Your task to perform on an android device: Go to sound settings Image 0: 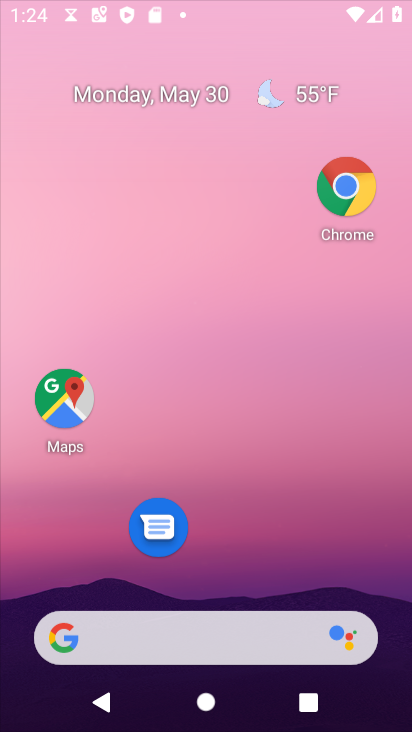
Step 0: click (257, 201)
Your task to perform on an android device: Go to sound settings Image 1: 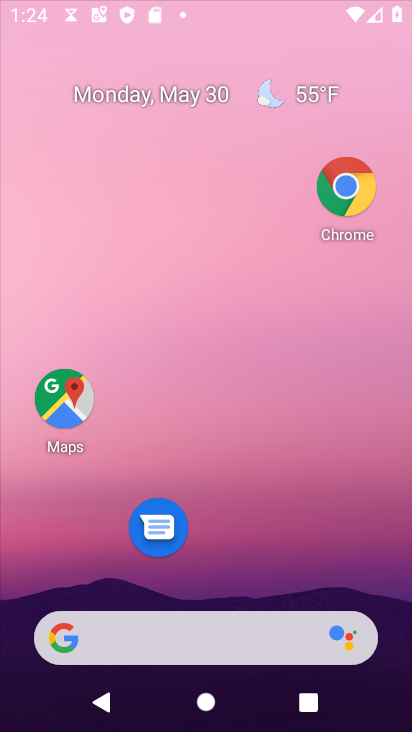
Step 1: drag from (203, 562) to (224, 180)
Your task to perform on an android device: Go to sound settings Image 2: 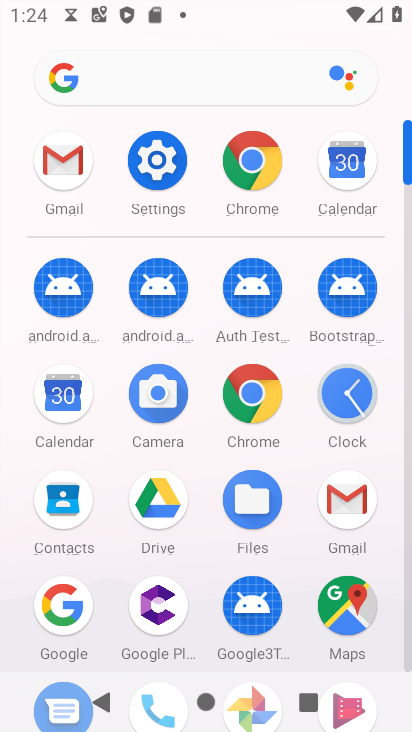
Step 2: drag from (196, 614) to (239, 222)
Your task to perform on an android device: Go to sound settings Image 3: 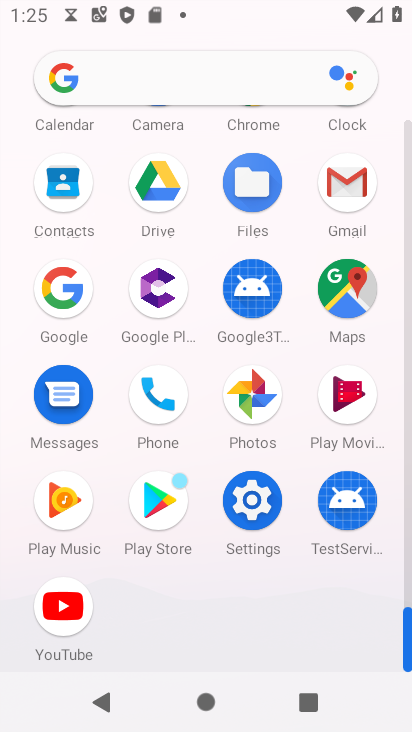
Step 3: click (248, 492)
Your task to perform on an android device: Go to sound settings Image 4: 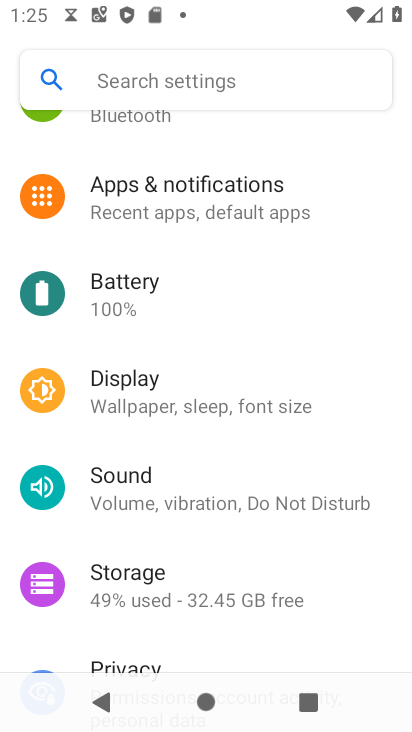
Step 4: click (172, 468)
Your task to perform on an android device: Go to sound settings Image 5: 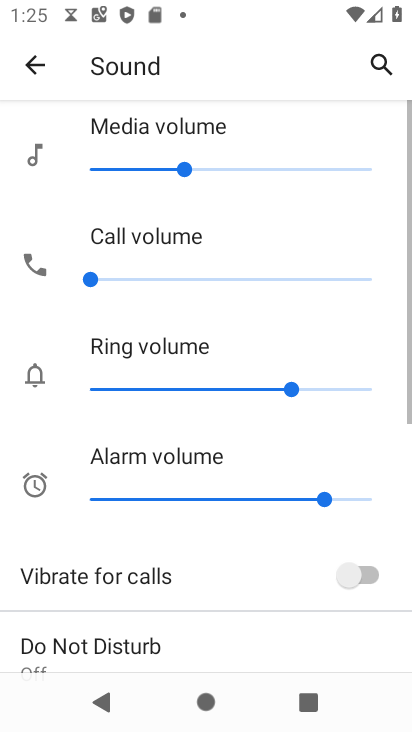
Step 5: task complete